Your task to perform on an android device: toggle location history Image 0: 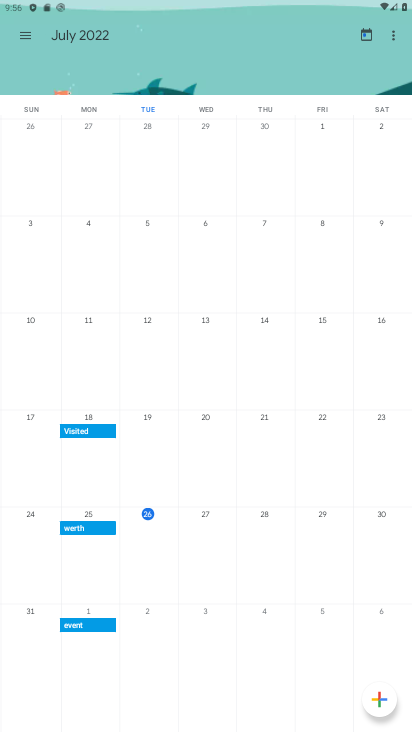
Step 0: press home button
Your task to perform on an android device: toggle location history Image 1: 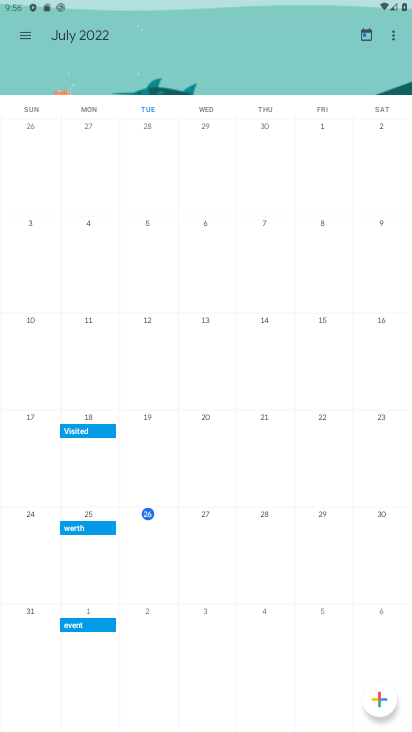
Step 1: click (320, 15)
Your task to perform on an android device: toggle location history Image 2: 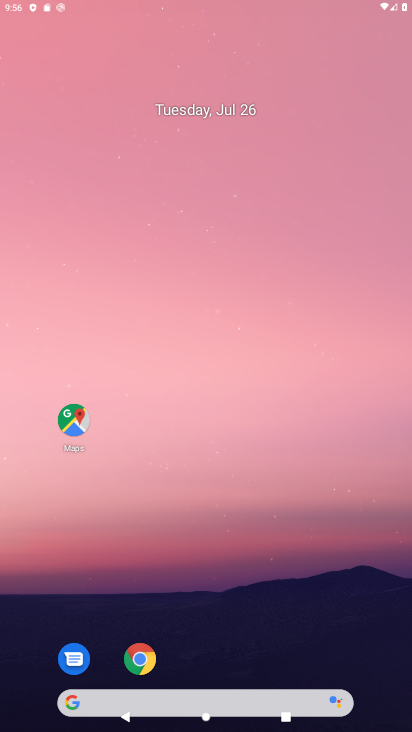
Step 2: drag from (180, 651) to (352, 1)
Your task to perform on an android device: toggle location history Image 3: 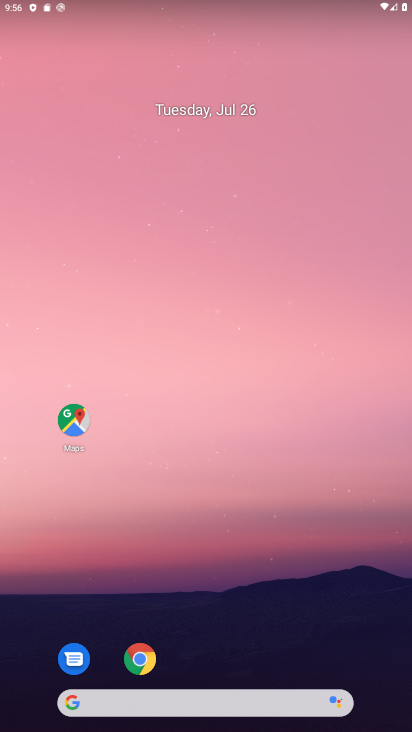
Step 3: drag from (353, 506) to (361, 51)
Your task to perform on an android device: toggle location history Image 4: 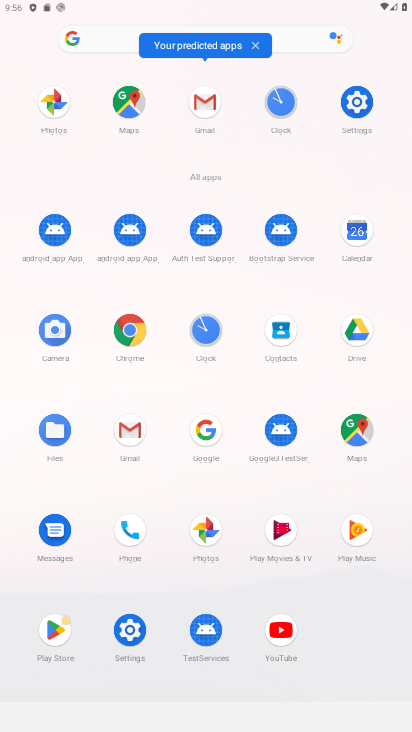
Step 4: click (373, 435)
Your task to perform on an android device: toggle location history Image 5: 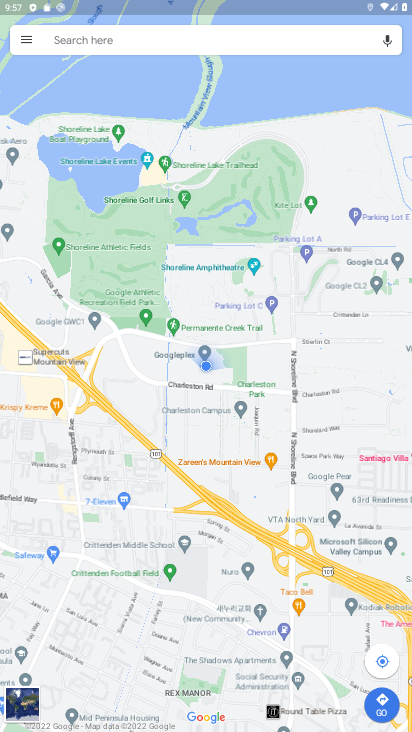
Step 5: click (19, 33)
Your task to perform on an android device: toggle location history Image 6: 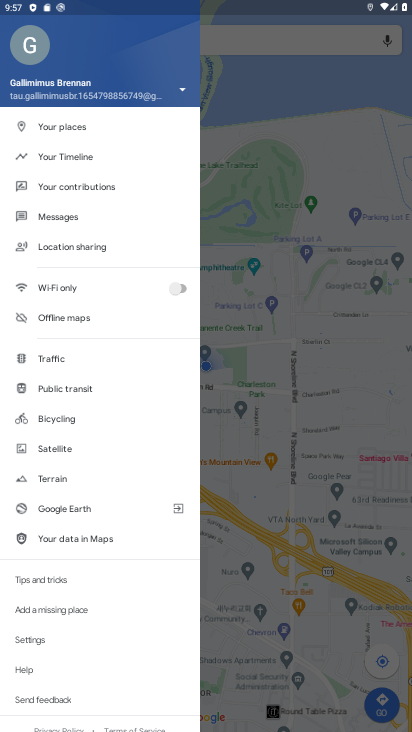
Step 6: click (25, 155)
Your task to perform on an android device: toggle location history Image 7: 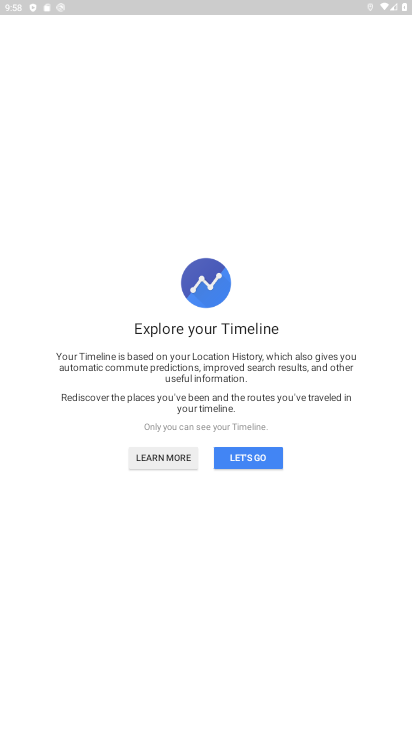
Step 7: click (252, 455)
Your task to perform on an android device: toggle location history Image 8: 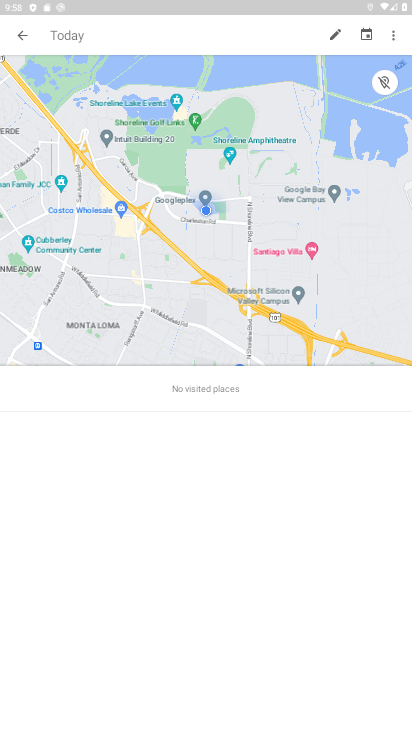
Step 8: click (395, 33)
Your task to perform on an android device: toggle location history Image 9: 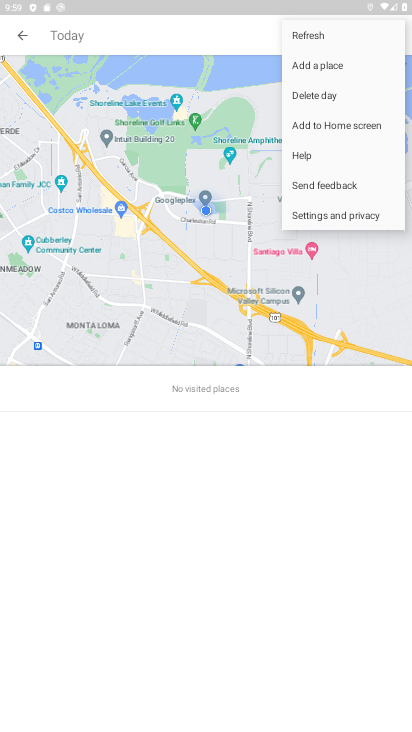
Step 9: click (334, 213)
Your task to perform on an android device: toggle location history Image 10: 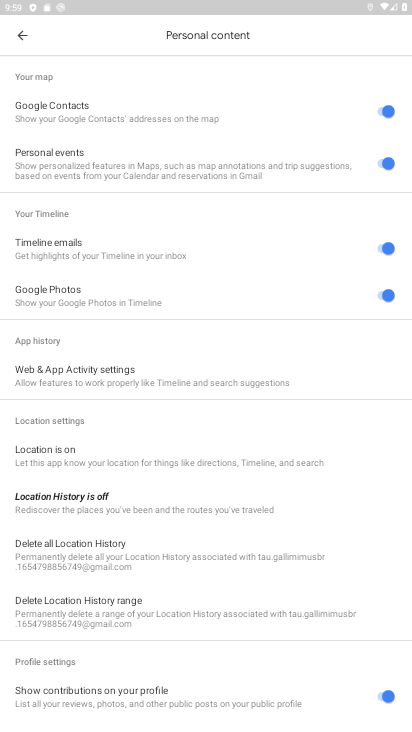
Step 10: click (94, 489)
Your task to perform on an android device: toggle location history Image 11: 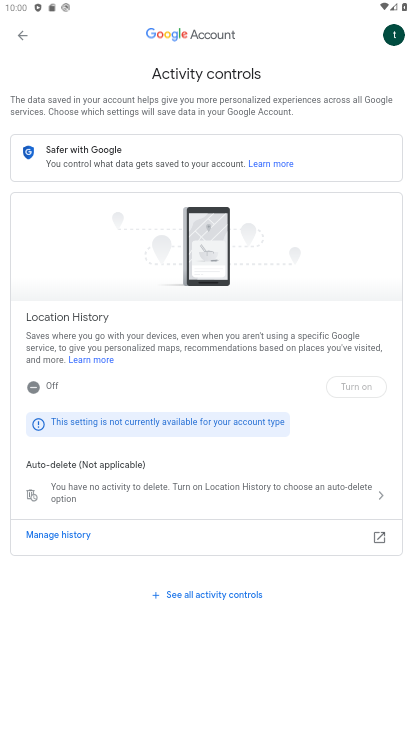
Step 11: task complete